Your task to perform on an android device: delete the emails in spam in the gmail app Image 0: 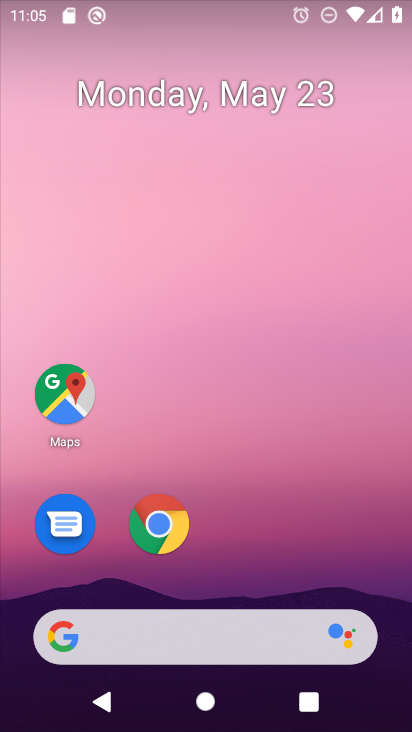
Step 0: drag from (214, 566) to (269, 58)
Your task to perform on an android device: delete the emails in spam in the gmail app Image 1: 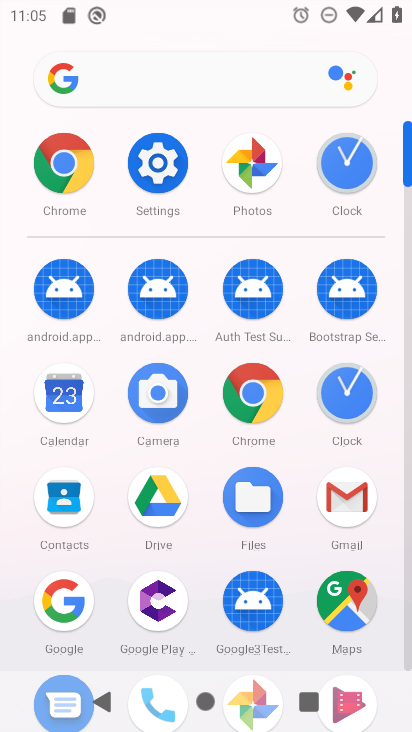
Step 1: click (351, 500)
Your task to perform on an android device: delete the emails in spam in the gmail app Image 2: 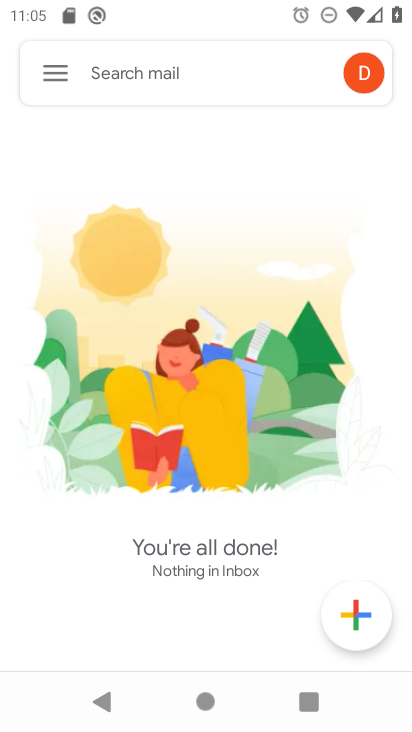
Step 2: click (65, 77)
Your task to perform on an android device: delete the emails in spam in the gmail app Image 3: 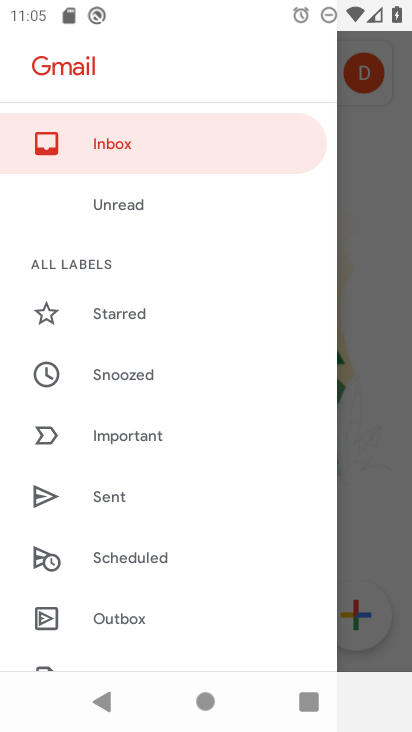
Step 3: drag from (152, 545) to (170, 330)
Your task to perform on an android device: delete the emails in spam in the gmail app Image 4: 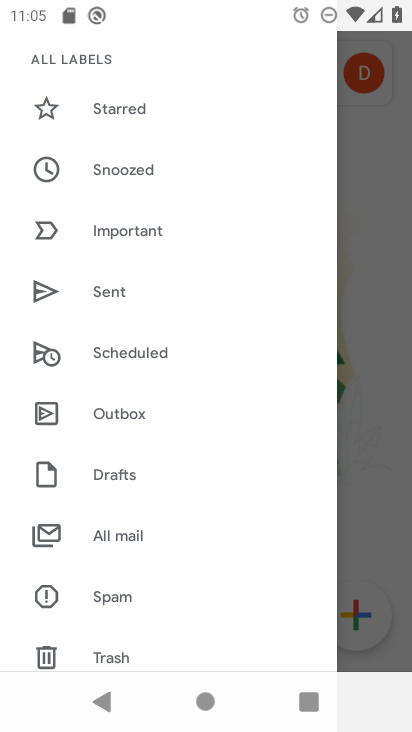
Step 4: click (130, 596)
Your task to perform on an android device: delete the emails in spam in the gmail app Image 5: 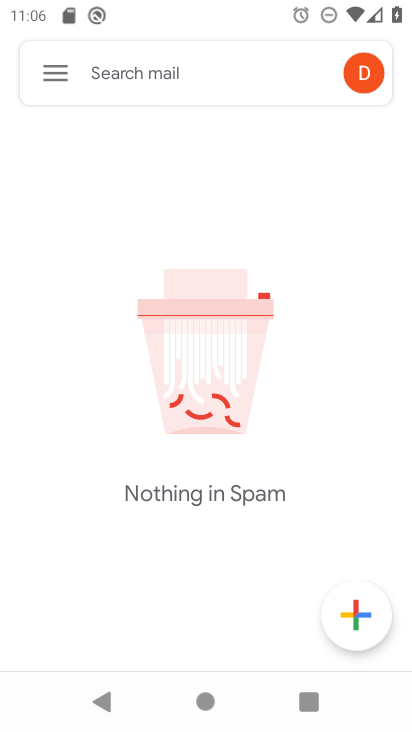
Step 5: task complete